Your task to perform on an android device: remove spam from my inbox in the gmail app Image 0: 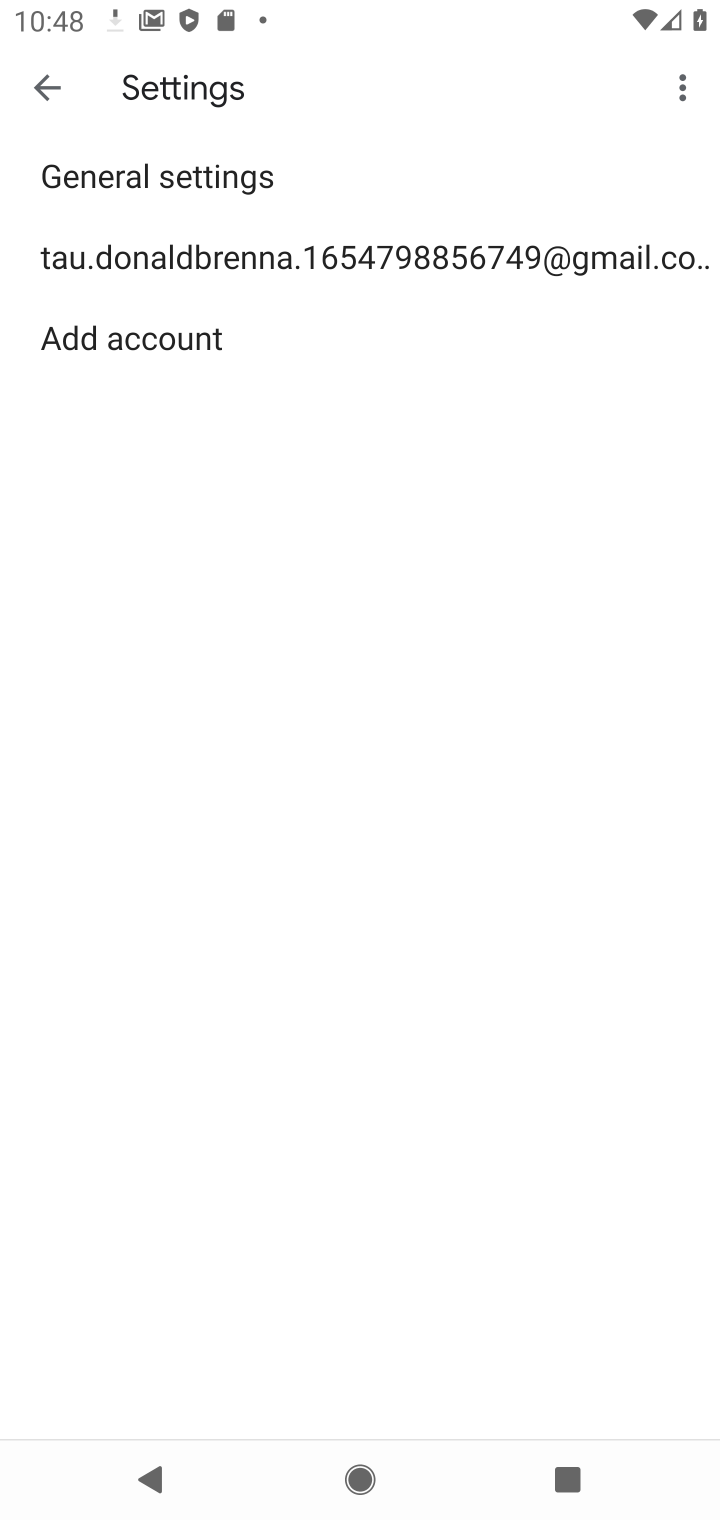
Step 0: press home button
Your task to perform on an android device: remove spam from my inbox in the gmail app Image 1: 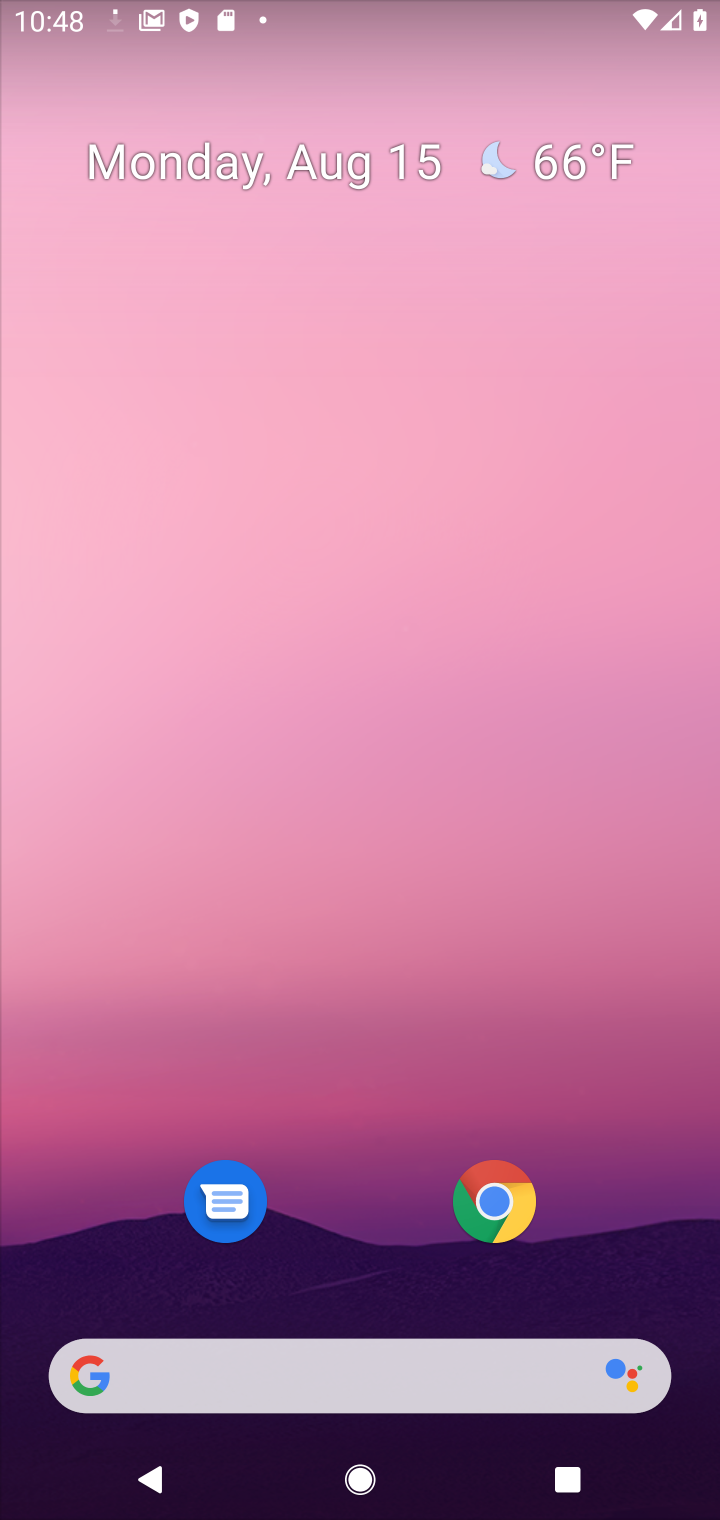
Step 1: drag from (303, 785) to (303, 652)
Your task to perform on an android device: remove spam from my inbox in the gmail app Image 2: 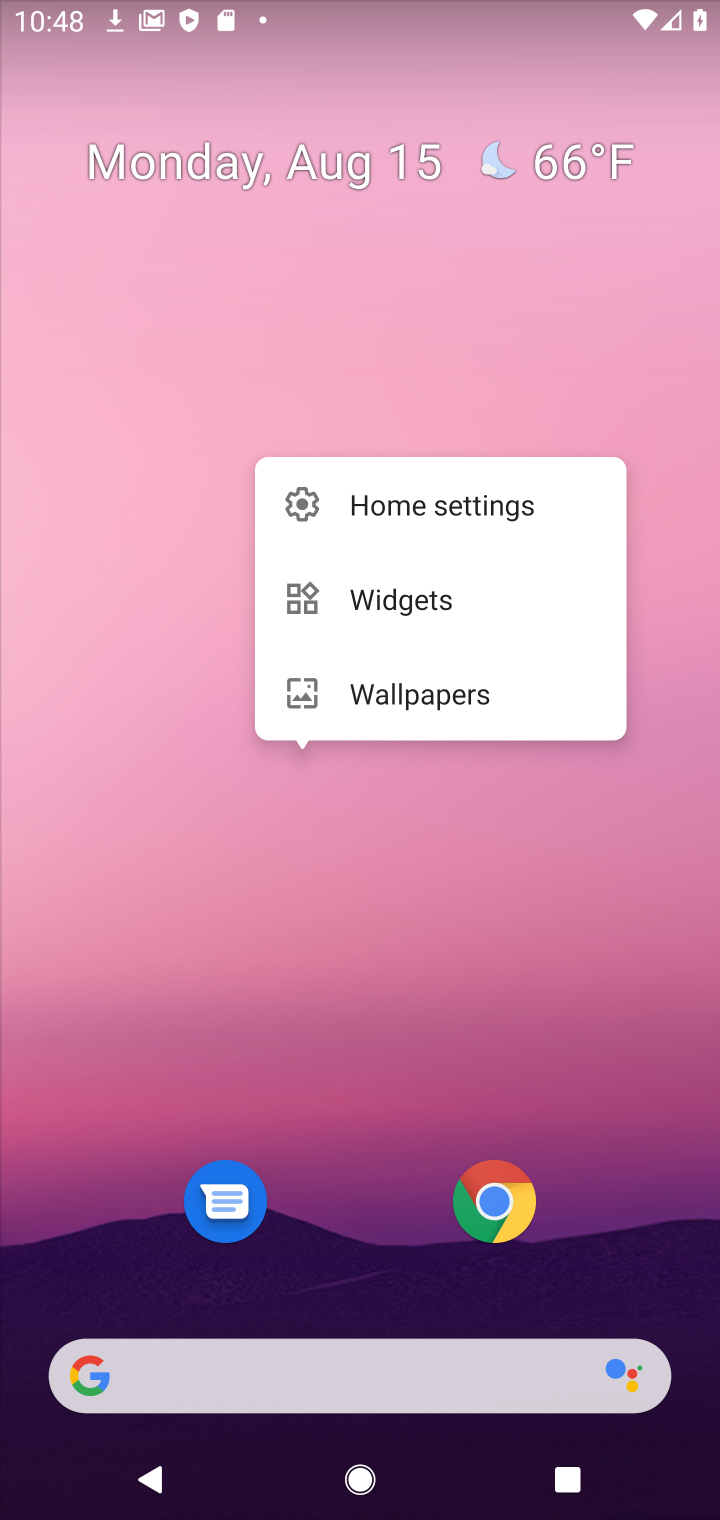
Step 2: drag from (294, 860) to (292, 453)
Your task to perform on an android device: remove spam from my inbox in the gmail app Image 3: 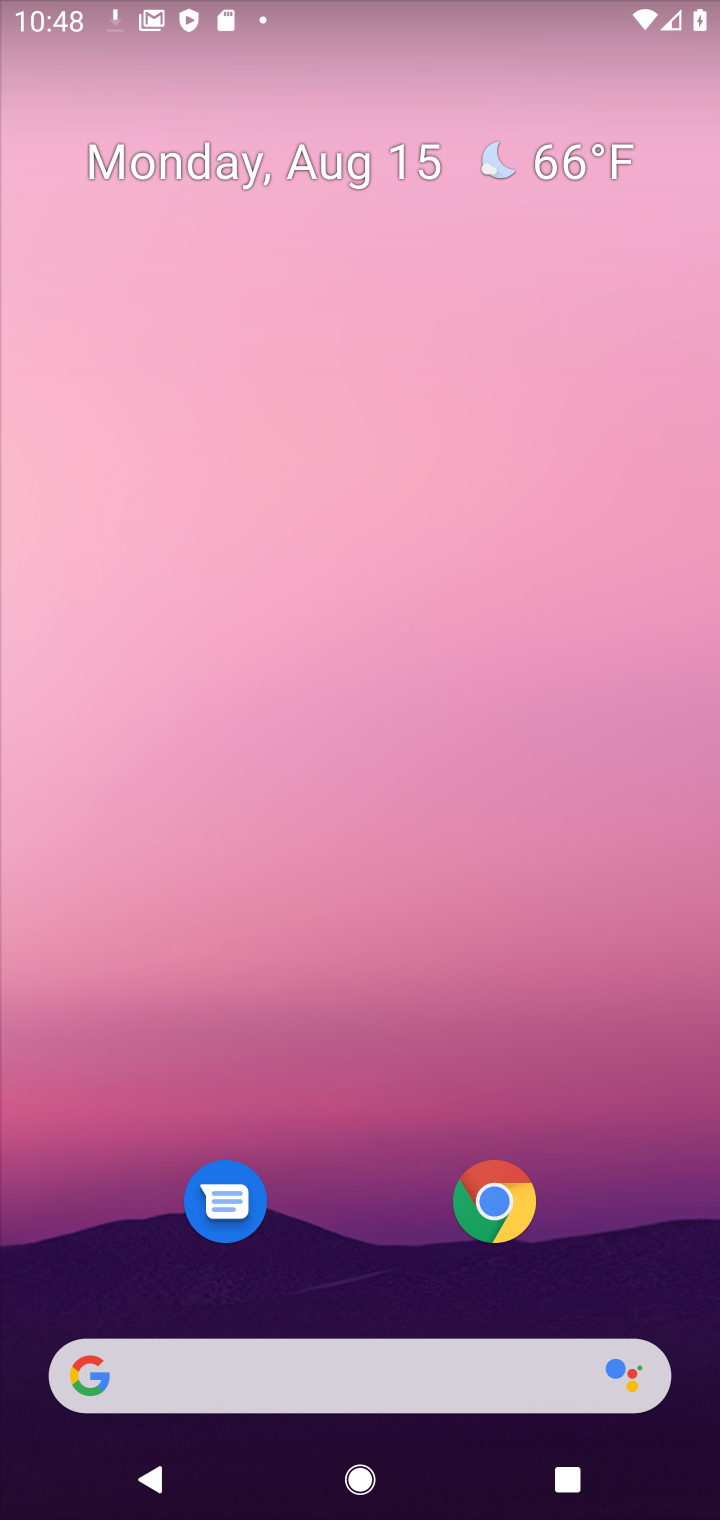
Step 3: drag from (365, 1366) to (342, 483)
Your task to perform on an android device: remove spam from my inbox in the gmail app Image 4: 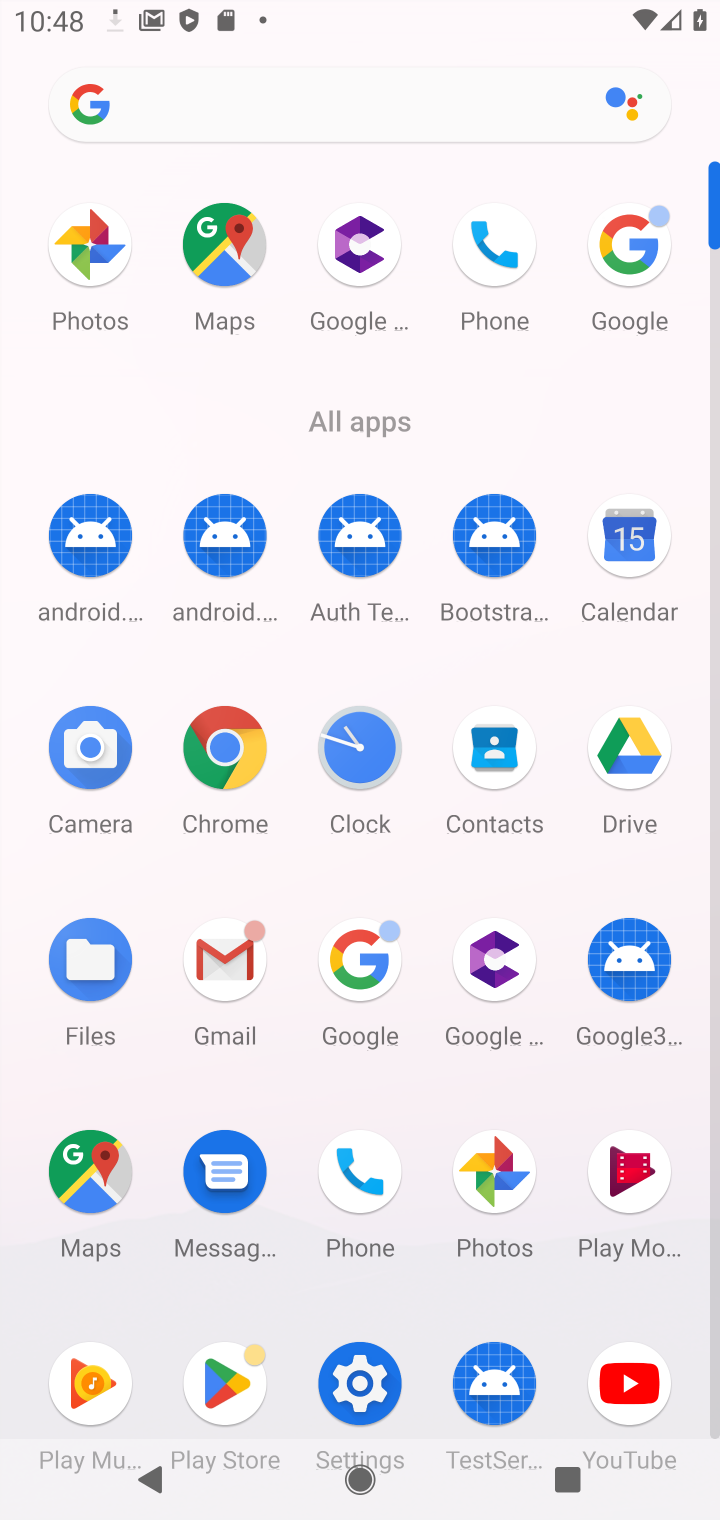
Step 4: click (230, 945)
Your task to perform on an android device: remove spam from my inbox in the gmail app Image 5: 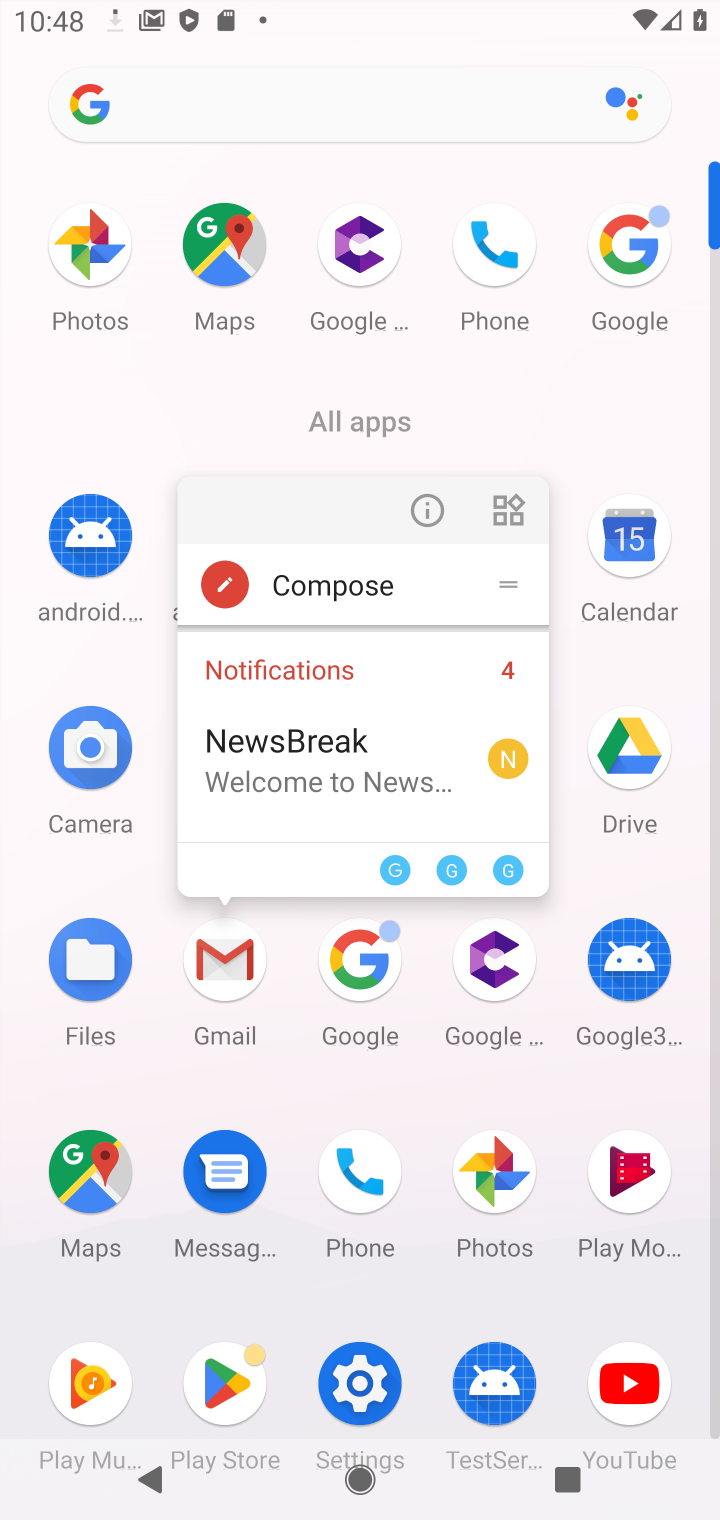
Step 5: click (232, 948)
Your task to perform on an android device: remove spam from my inbox in the gmail app Image 6: 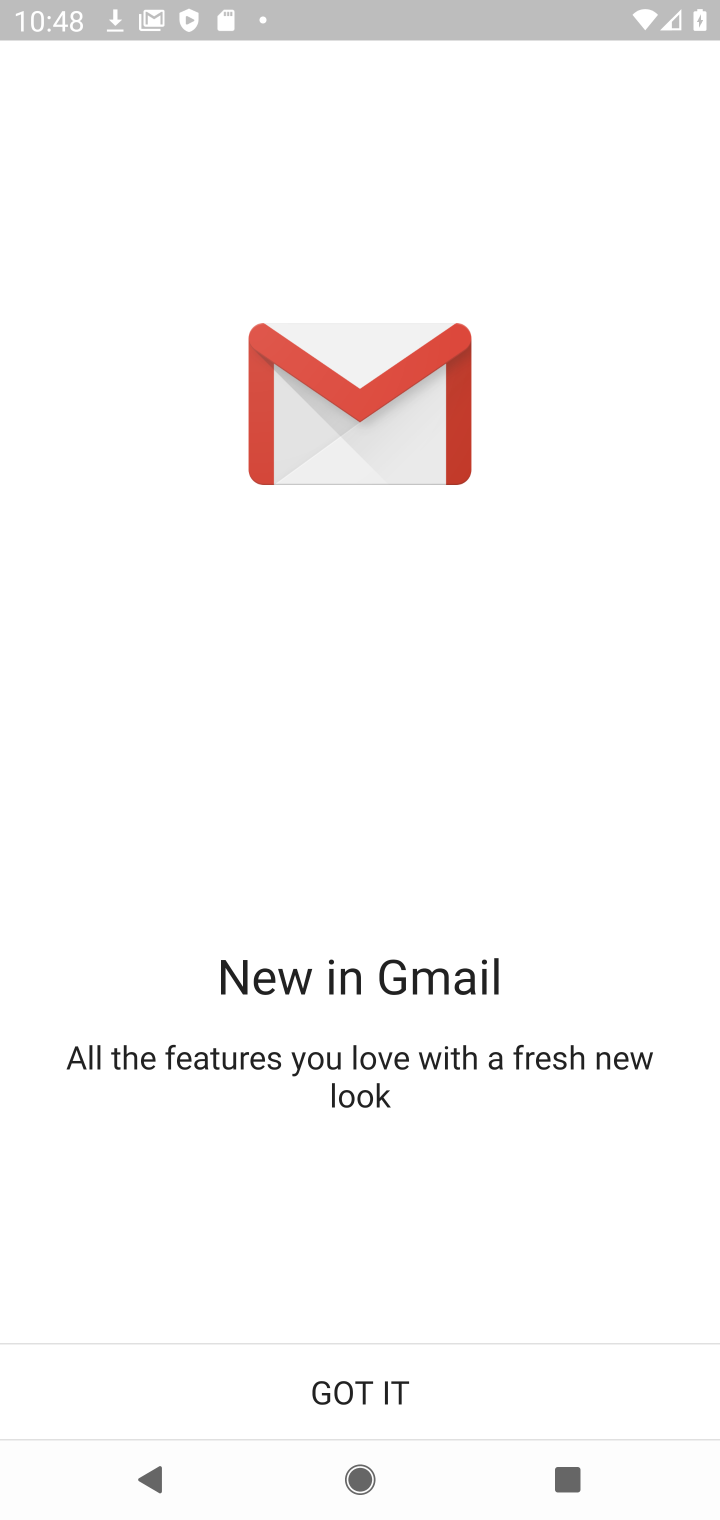
Step 6: click (340, 1397)
Your task to perform on an android device: remove spam from my inbox in the gmail app Image 7: 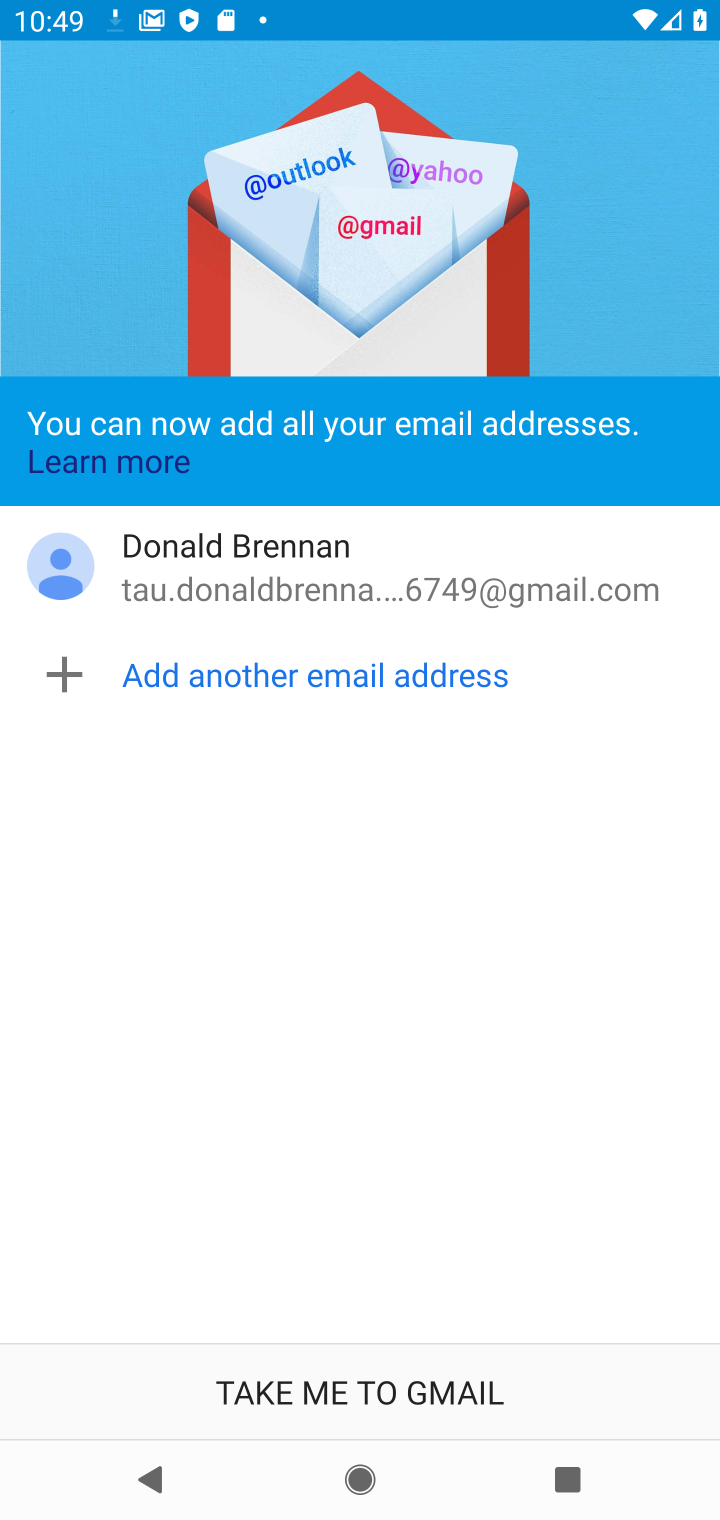
Step 7: click (383, 1379)
Your task to perform on an android device: remove spam from my inbox in the gmail app Image 8: 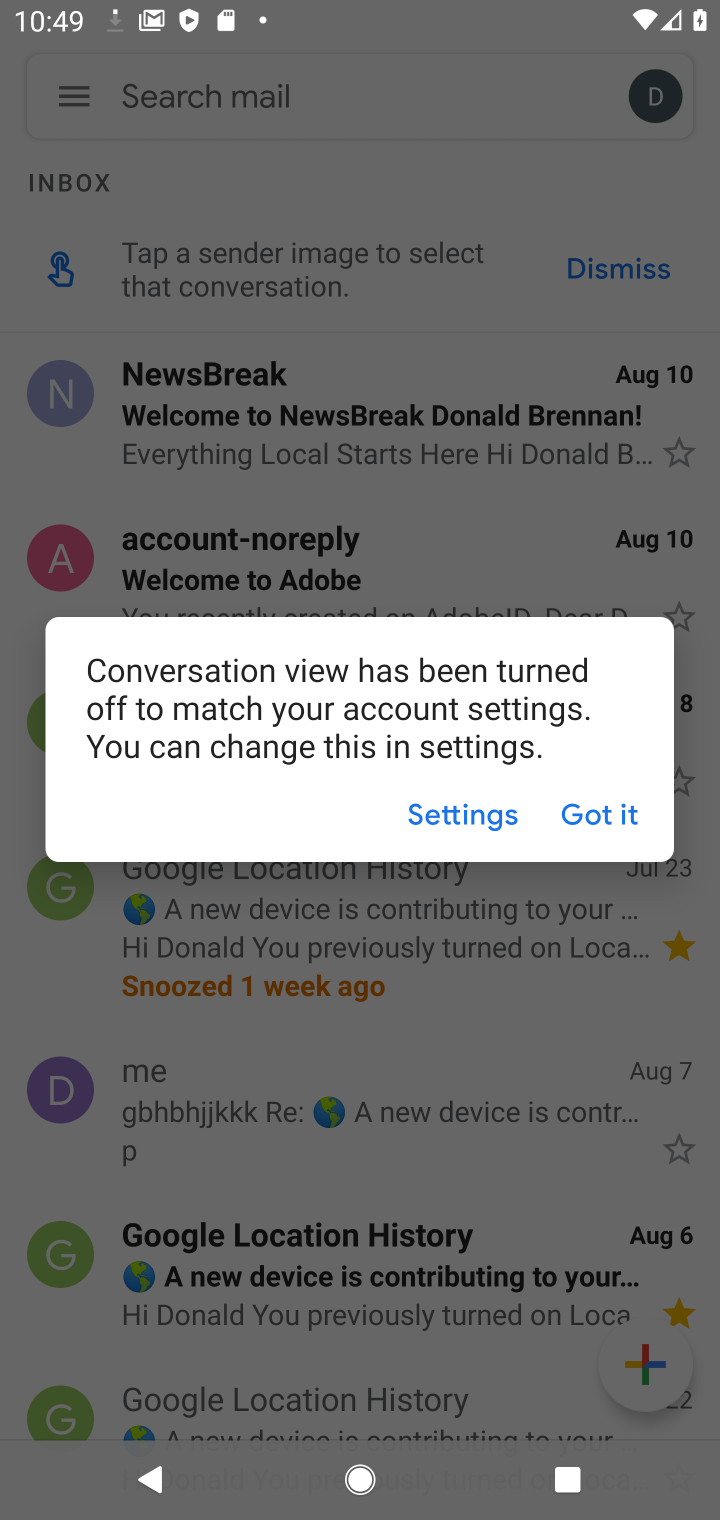
Step 8: click (589, 828)
Your task to perform on an android device: remove spam from my inbox in the gmail app Image 9: 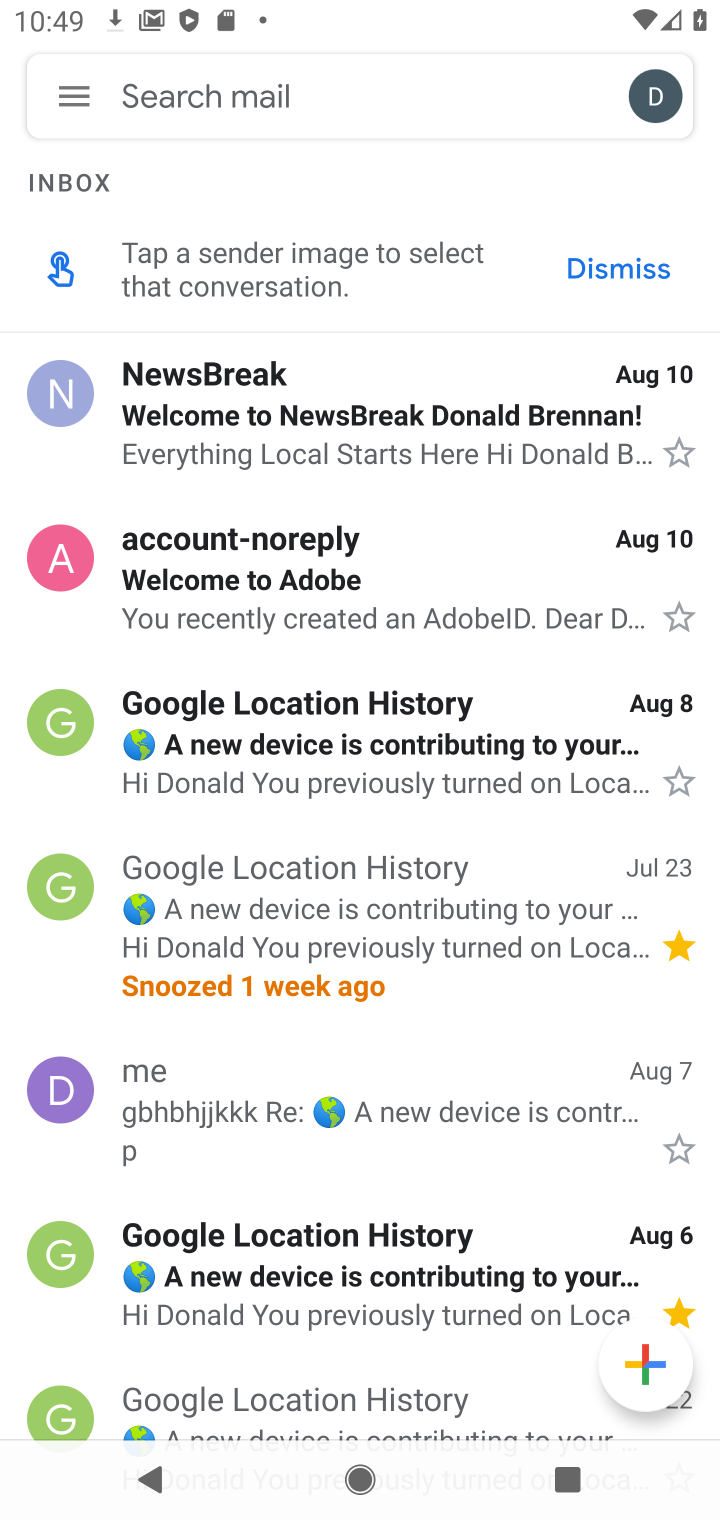
Step 9: click (73, 93)
Your task to perform on an android device: remove spam from my inbox in the gmail app Image 10: 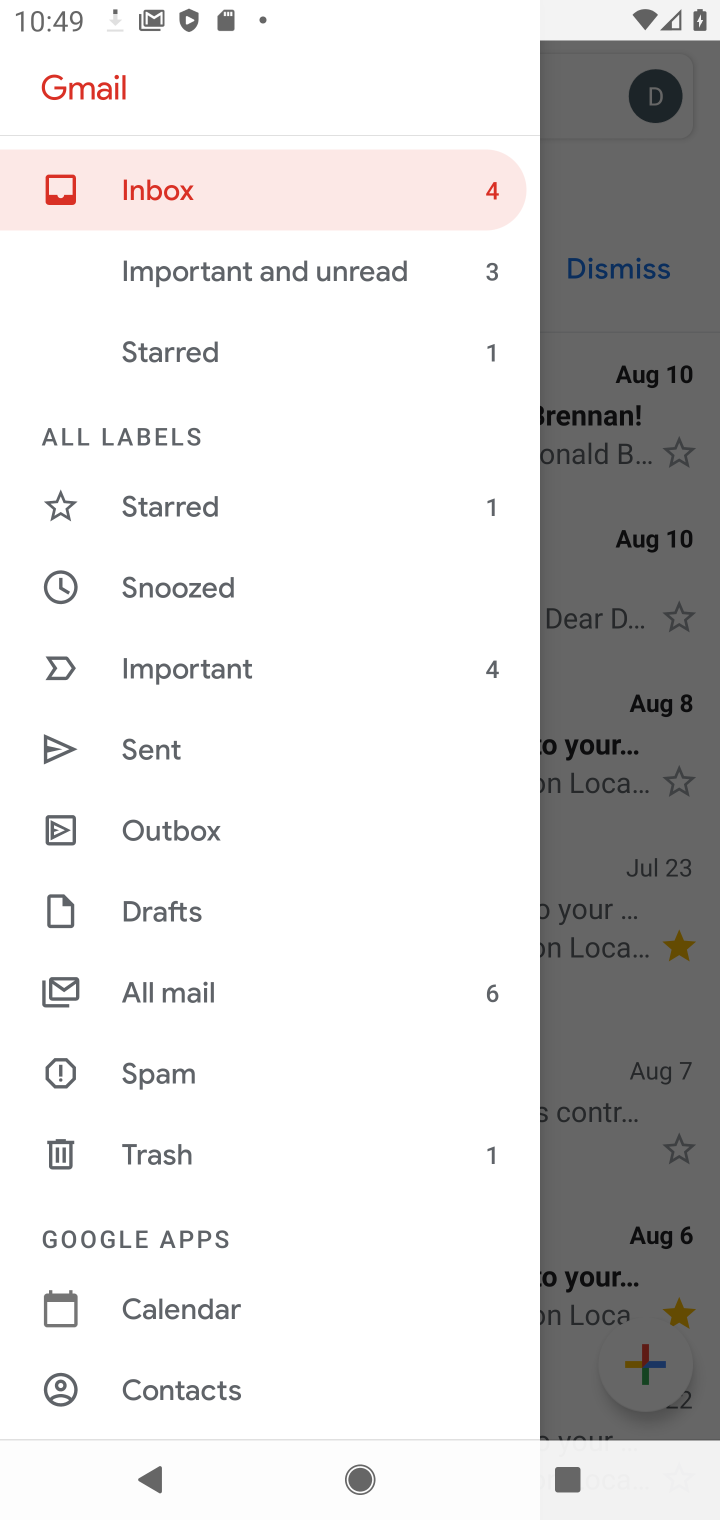
Step 10: click (162, 1075)
Your task to perform on an android device: remove spam from my inbox in the gmail app Image 11: 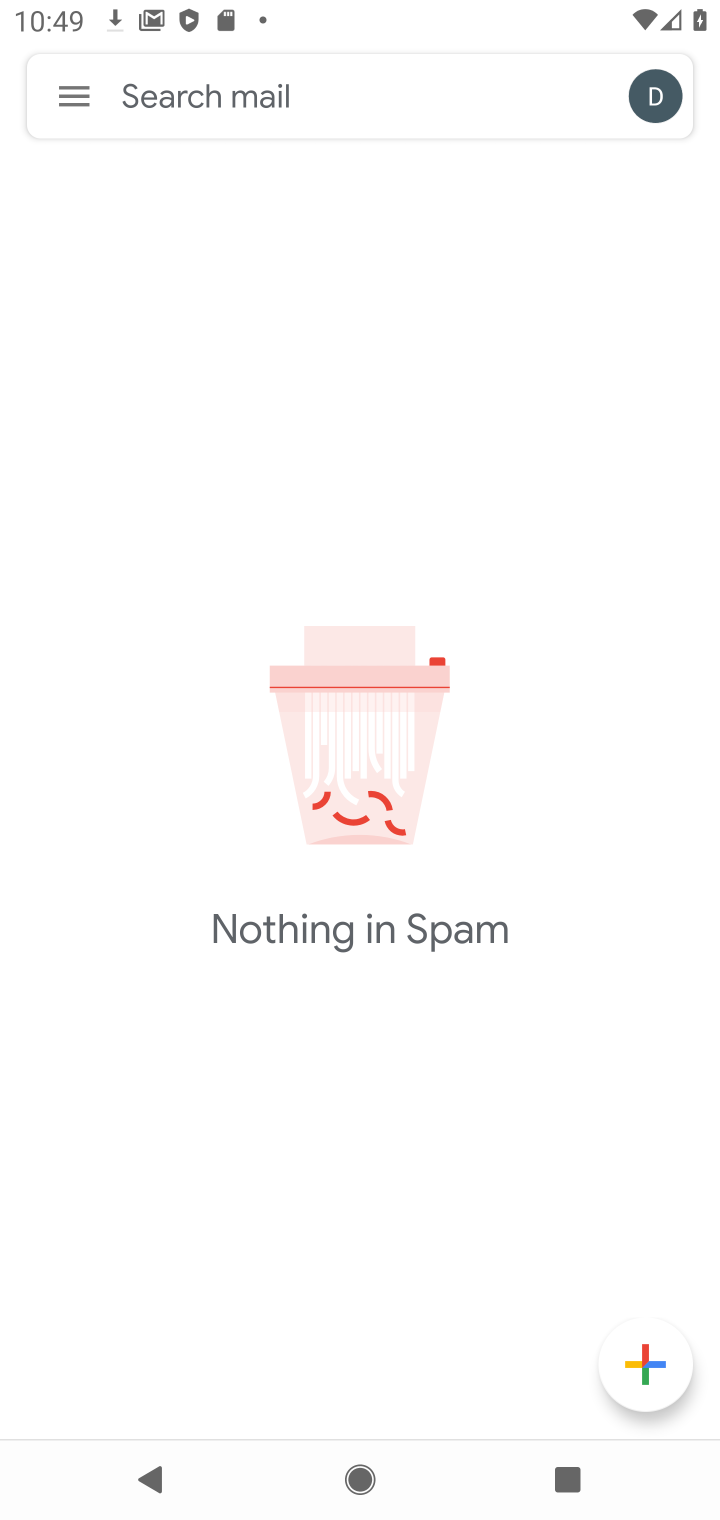
Step 11: task complete